Your task to perform on an android device: Open Reddit.com Image 0: 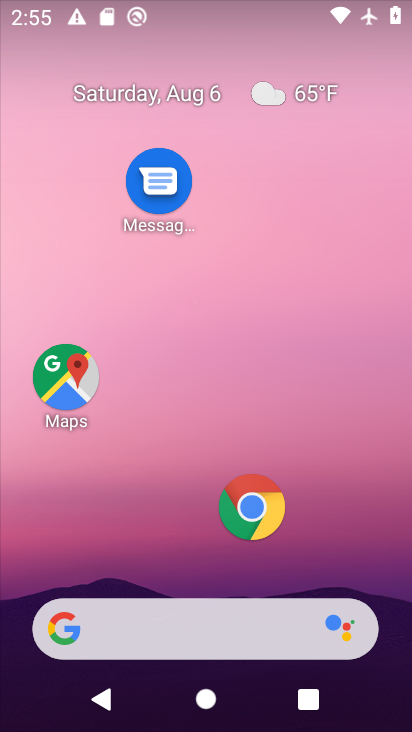
Step 0: click (238, 520)
Your task to perform on an android device: Open Reddit.com Image 1: 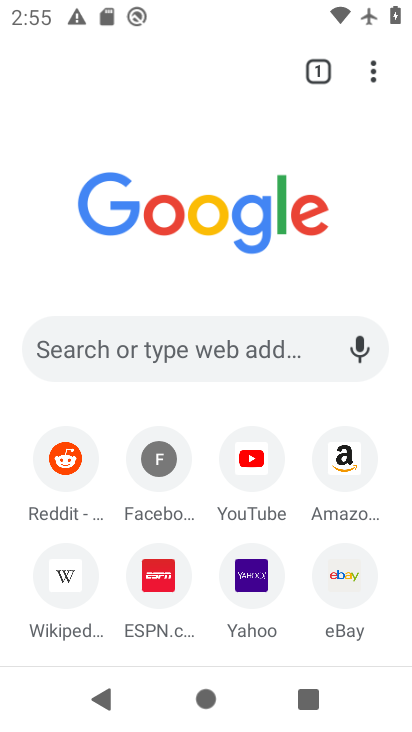
Step 1: click (190, 345)
Your task to perform on an android device: Open Reddit.com Image 2: 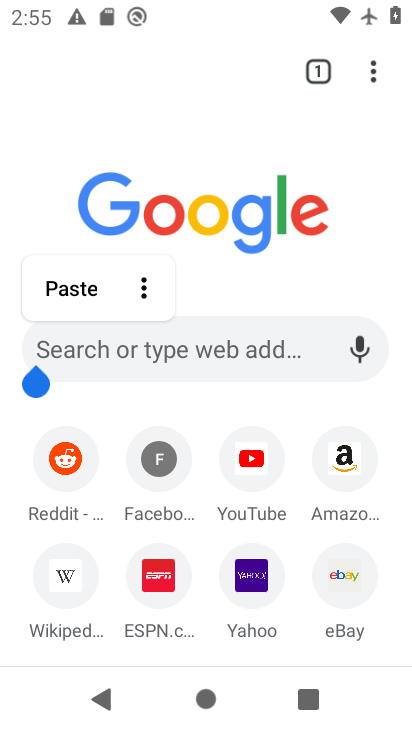
Step 2: click (226, 366)
Your task to perform on an android device: Open Reddit.com Image 3: 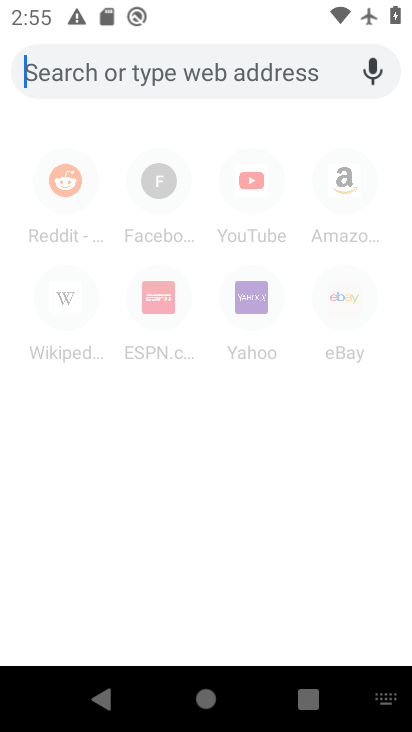
Step 3: type "reddit.com"
Your task to perform on an android device: Open Reddit.com Image 4: 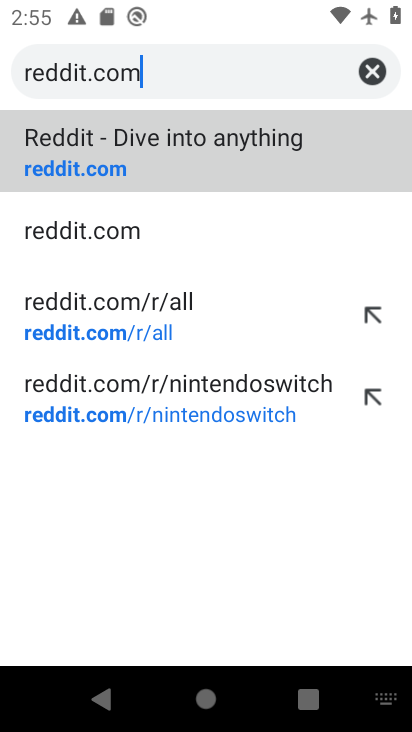
Step 4: click (69, 150)
Your task to perform on an android device: Open Reddit.com Image 5: 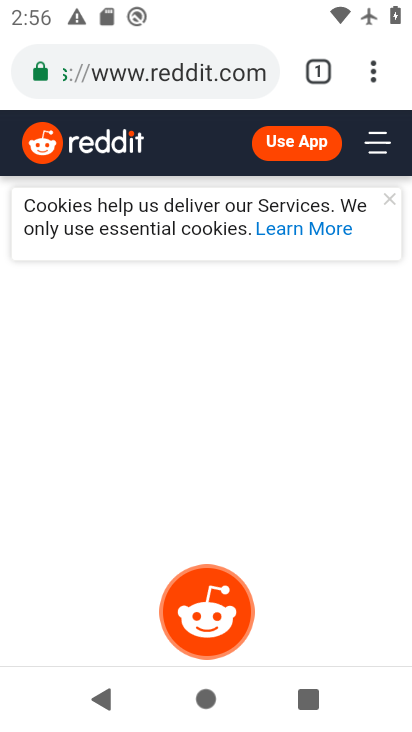
Step 5: task complete